Your task to perform on an android device: check data usage Image 0: 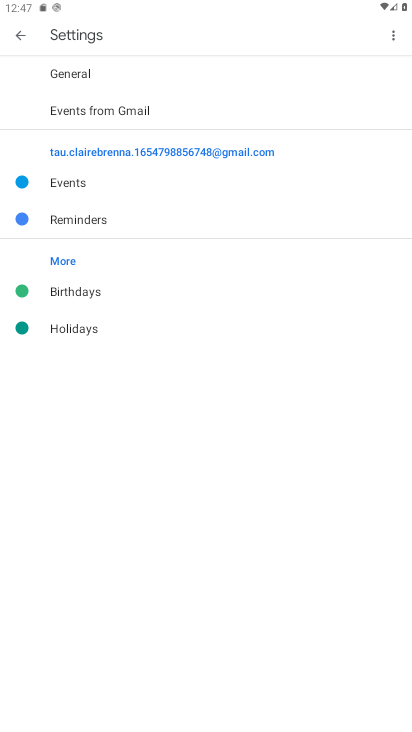
Step 0: press back button
Your task to perform on an android device: check data usage Image 1: 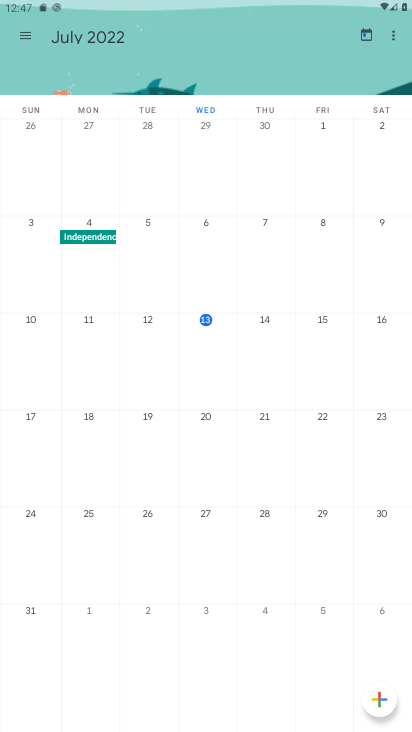
Step 1: press home button
Your task to perform on an android device: check data usage Image 2: 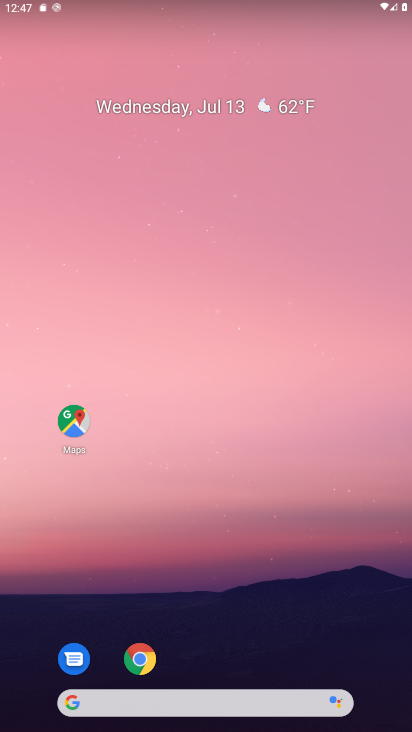
Step 2: drag from (226, 537) to (214, 41)
Your task to perform on an android device: check data usage Image 3: 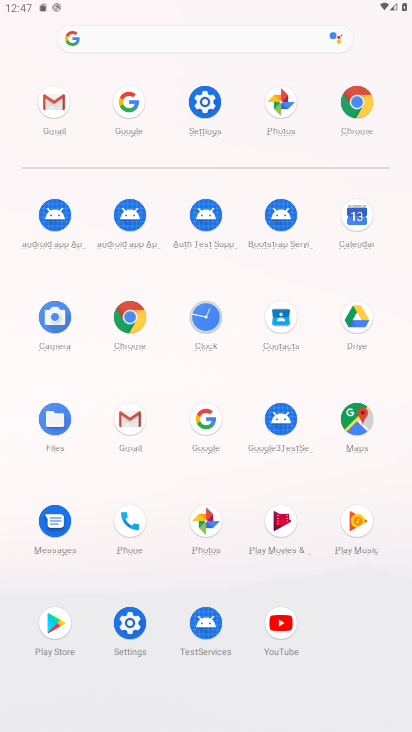
Step 3: click (198, 108)
Your task to perform on an android device: check data usage Image 4: 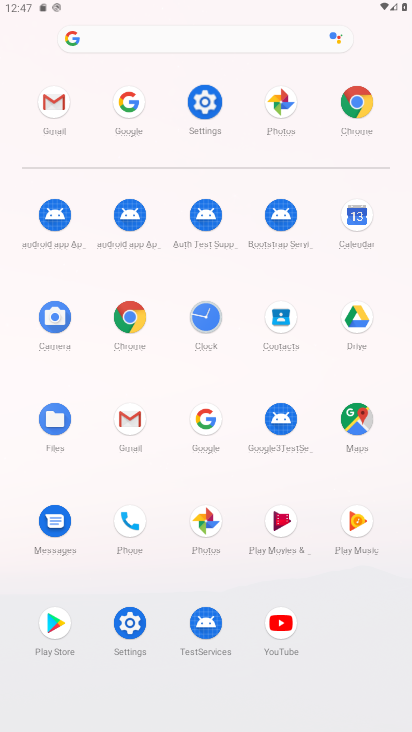
Step 4: click (203, 103)
Your task to perform on an android device: check data usage Image 5: 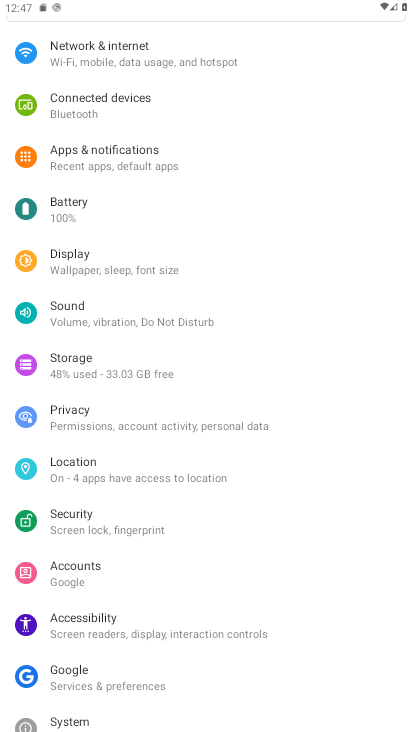
Step 5: click (205, 103)
Your task to perform on an android device: check data usage Image 6: 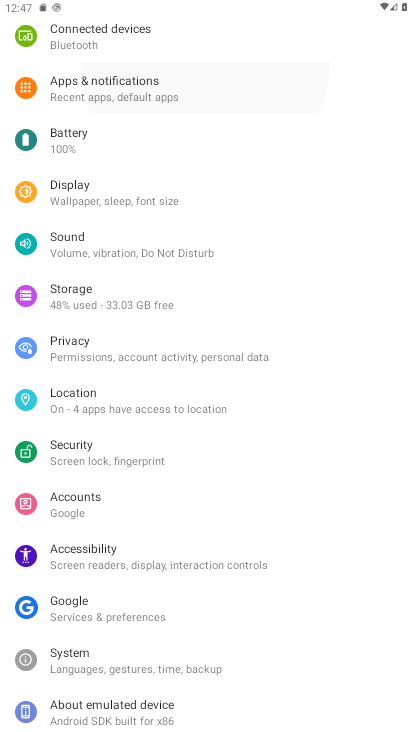
Step 6: click (203, 103)
Your task to perform on an android device: check data usage Image 7: 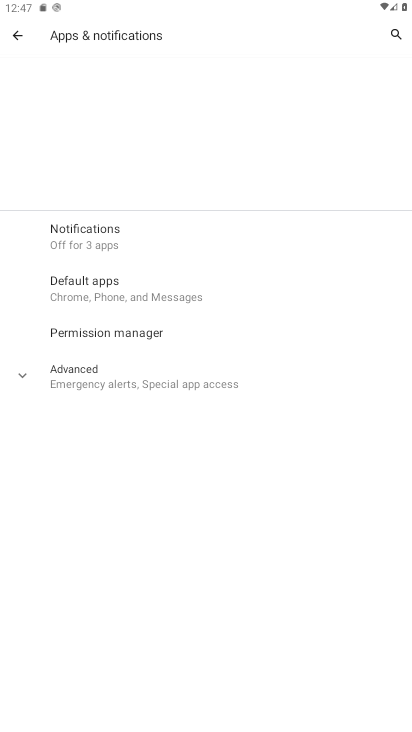
Step 7: drag from (119, 32) to (120, 436)
Your task to perform on an android device: check data usage Image 8: 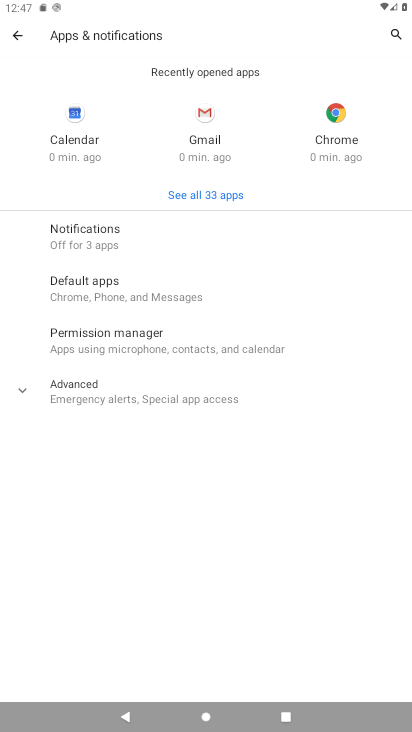
Step 8: click (10, 28)
Your task to perform on an android device: check data usage Image 9: 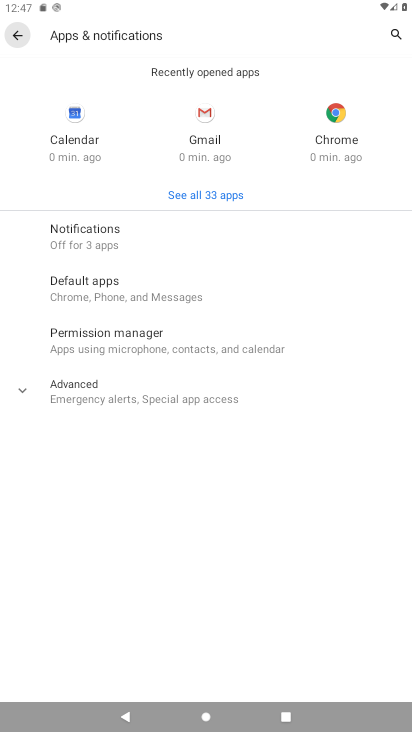
Step 9: click (10, 28)
Your task to perform on an android device: check data usage Image 10: 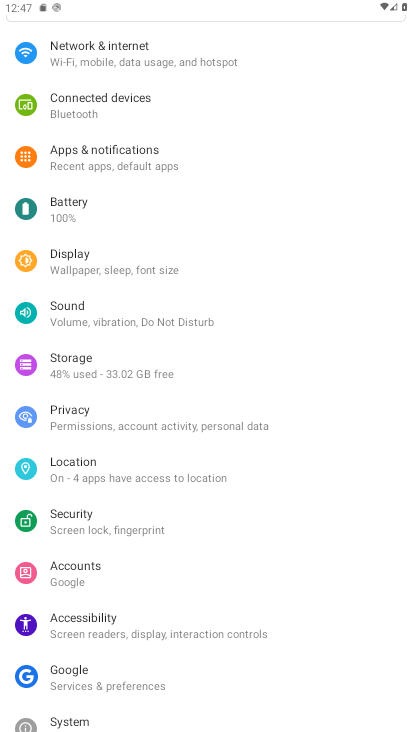
Step 10: click (102, 62)
Your task to perform on an android device: check data usage Image 11: 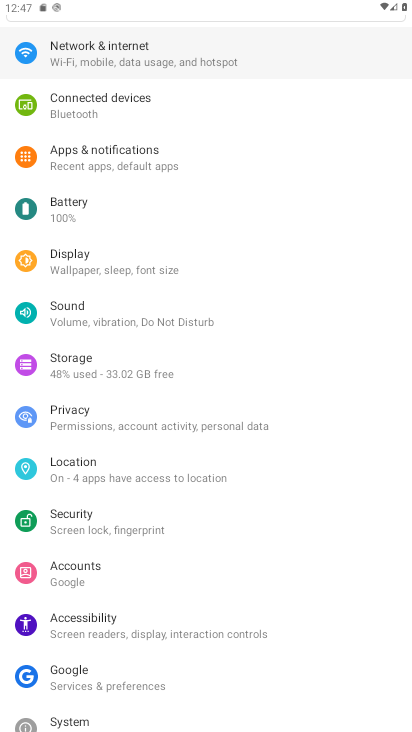
Step 11: click (108, 61)
Your task to perform on an android device: check data usage Image 12: 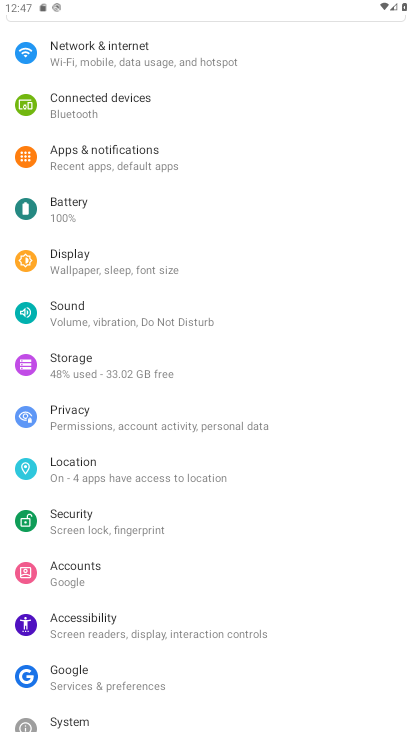
Step 12: click (111, 60)
Your task to perform on an android device: check data usage Image 13: 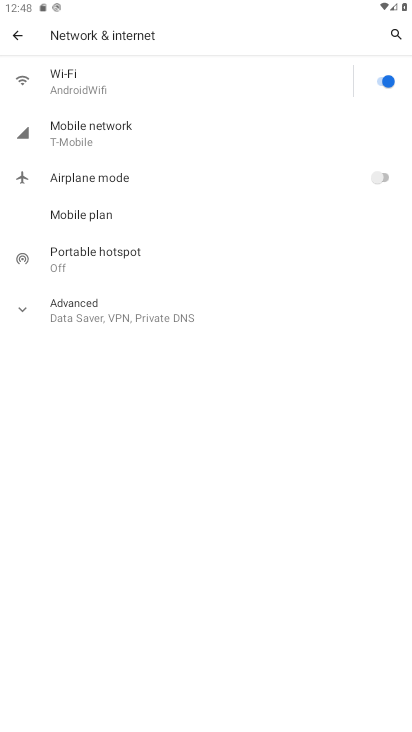
Step 13: task complete